Your task to perform on an android device: Open Android settings Image 0: 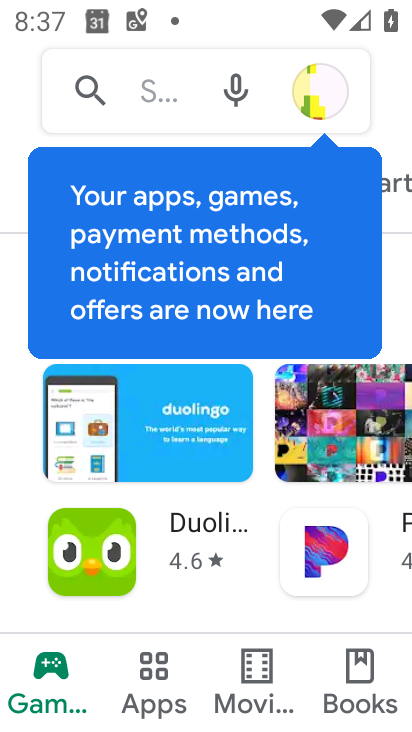
Step 0: press home button
Your task to perform on an android device: Open Android settings Image 1: 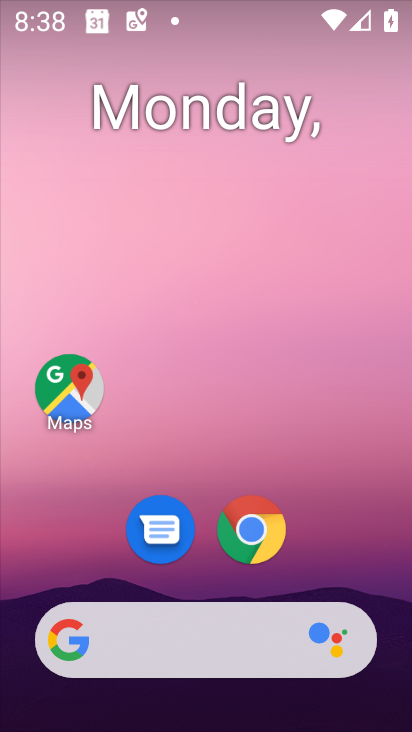
Step 1: drag from (28, 400) to (218, 155)
Your task to perform on an android device: Open Android settings Image 2: 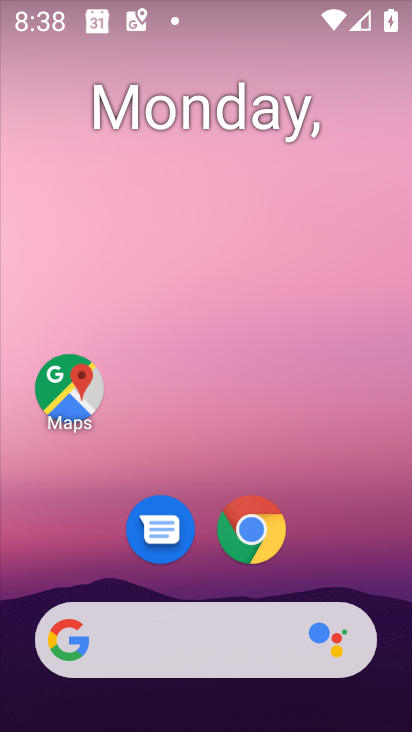
Step 2: drag from (14, 731) to (319, 146)
Your task to perform on an android device: Open Android settings Image 3: 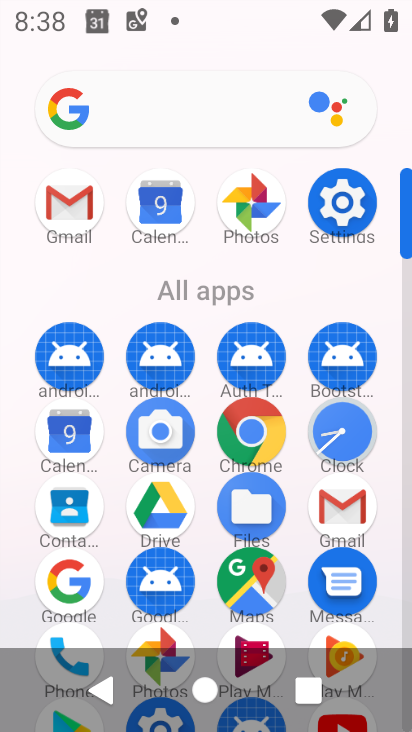
Step 3: click (327, 202)
Your task to perform on an android device: Open Android settings Image 4: 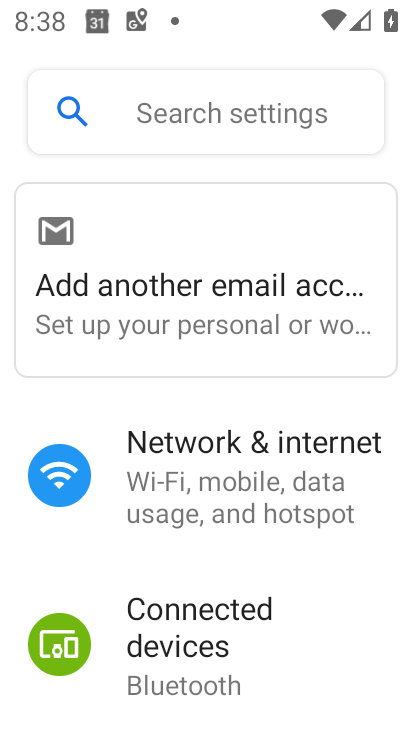
Step 4: drag from (184, 642) to (324, 220)
Your task to perform on an android device: Open Android settings Image 5: 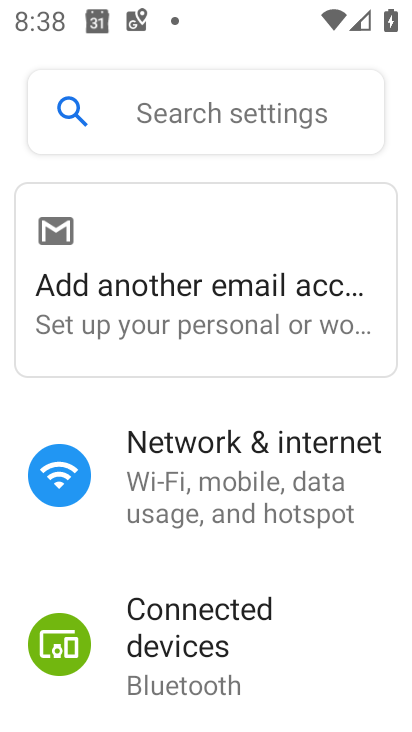
Step 5: drag from (92, 670) to (393, 229)
Your task to perform on an android device: Open Android settings Image 6: 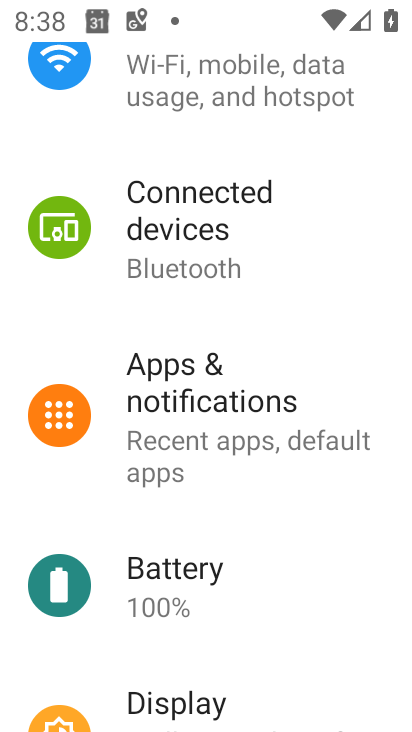
Step 6: drag from (137, 687) to (333, 227)
Your task to perform on an android device: Open Android settings Image 7: 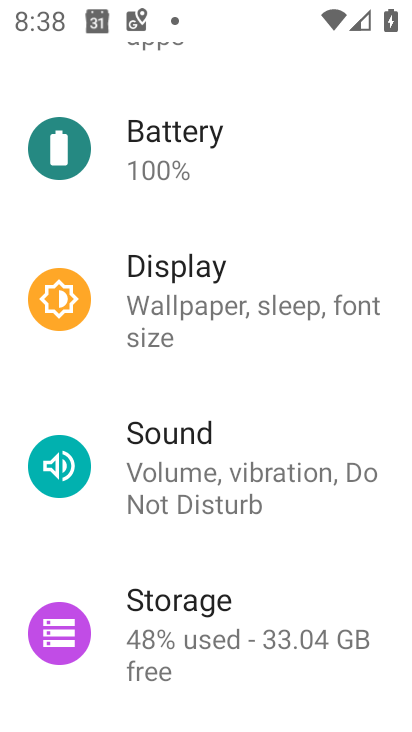
Step 7: drag from (100, 702) to (282, 277)
Your task to perform on an android device: Open Android settings Image 8: 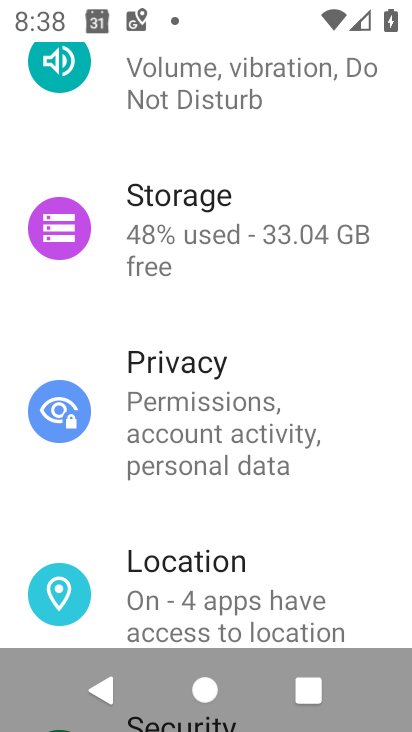
Step 8: drag from (151, 607) to (330, 231)
Your task to perform on an android device: Open Android settings Image 9: 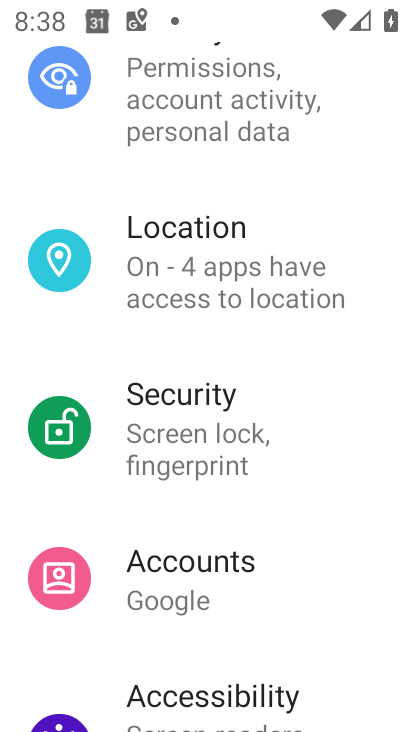
Step 9: drag from (135, 699) to (281, 300)
Your task to perform on an android device: Open Android settings Image 10: 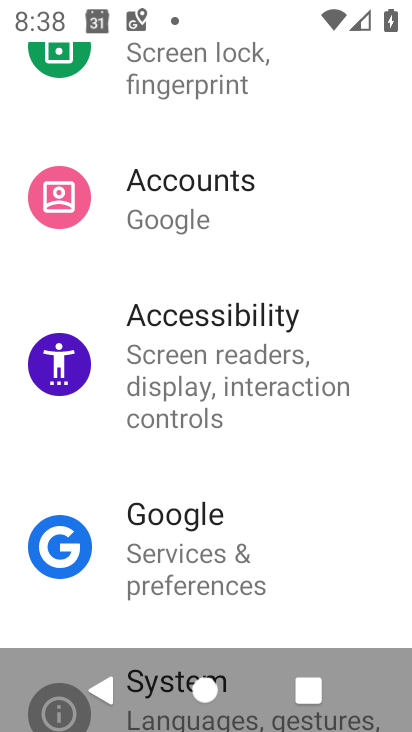
Step 10: drag from (139, 644) to (241, 291)
Your task to perform on an android device: Open Android settings Image 11: 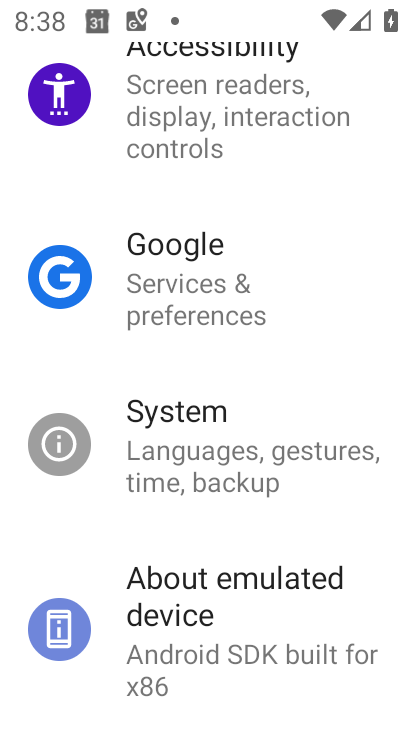
Step 11: drag from (145, 705) to (248, 358)
Your task to perform on an android device: Open Android settings Image 12: 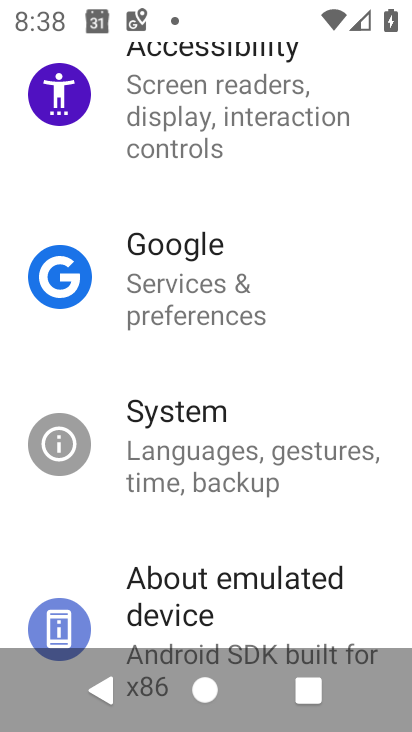
Step 12: click (167, 588)
Your task to perform on an android device: Open Android settings Image 13: 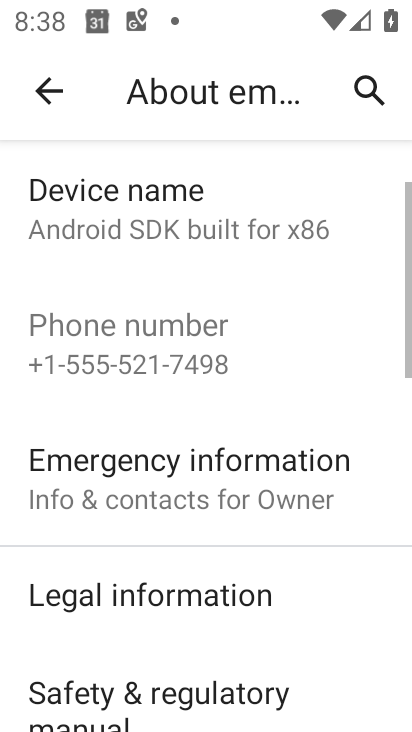
Step 13: task complete